Your task to perform on an android device: Go to Amazon Image 0: 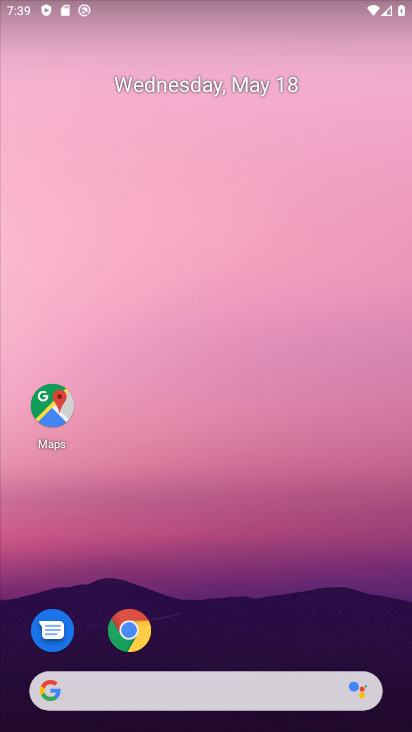
Step 0: click (135, 635)
Your task to perform on an android device: Go to Amazon Image 1: 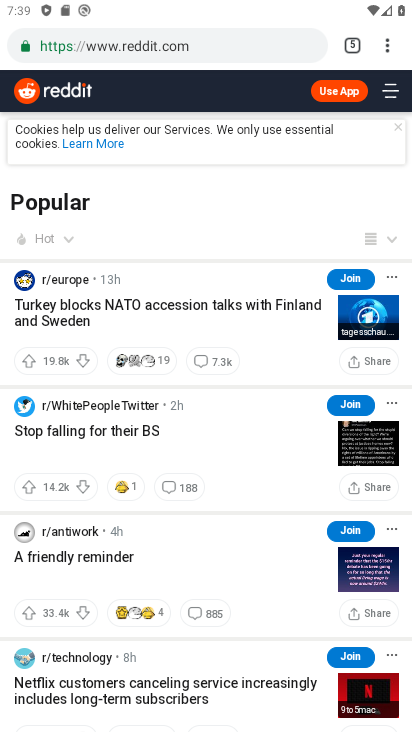
Step 1: click (388, 43)
Your task to perform on an android device: Go to Amazon Image 2: 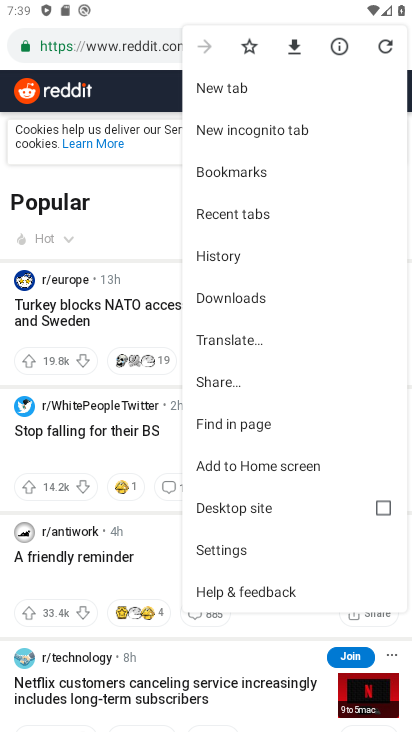
Step 2: click (237, 89)
Your task to perform on an android device: Go to Amazon Image 3: 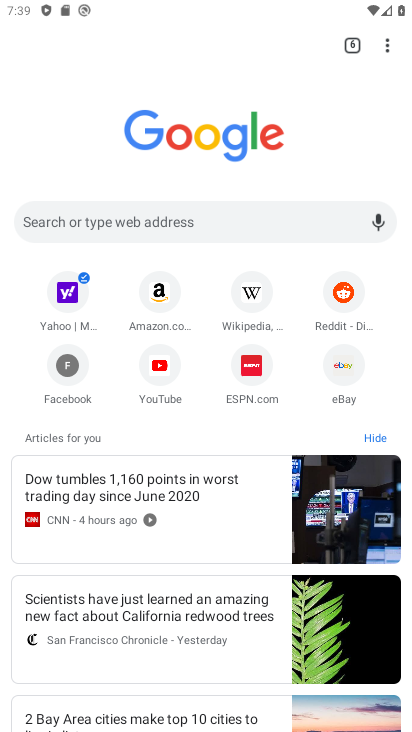
Step 3: click (158, 300)
Your task to perform on an android device: Go to Amazon Image 4: 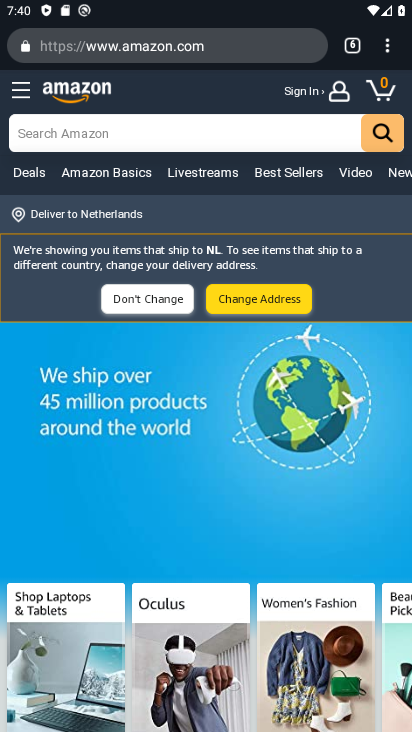
Step 4: task complete